Your task to perform on an android device: What's the weather today? Image 0: 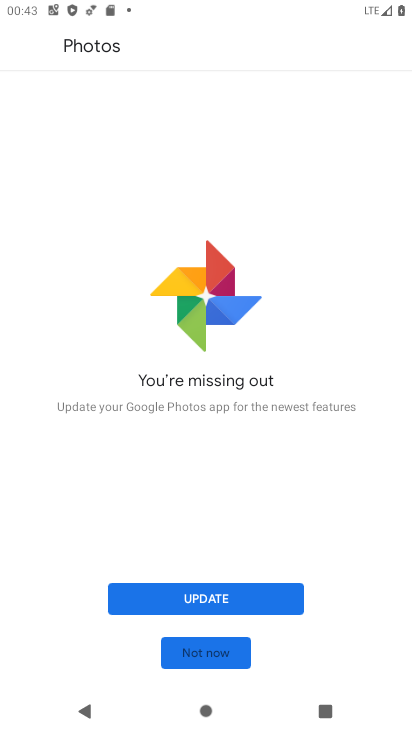
Step 0: press home button
Your task to perform on an android device: What's the weather today? Image 1: 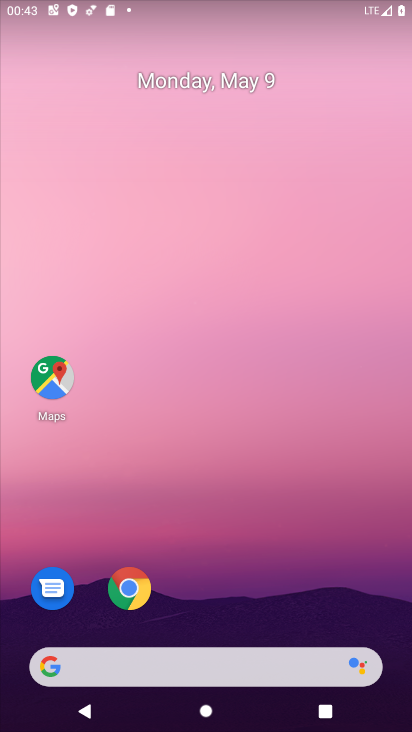
Step 1: click (140, 663)
Your task to perform on an android device: What's the weather today? Image 2: 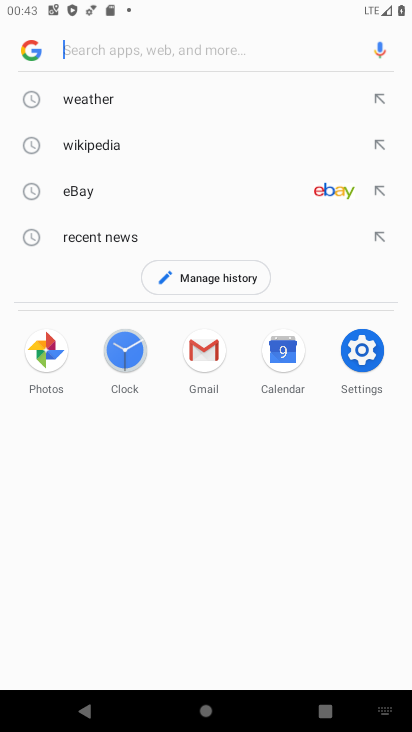
Step 2: click (99, 100)
Your task to perform on an android device: What's the weather today? Image 3: 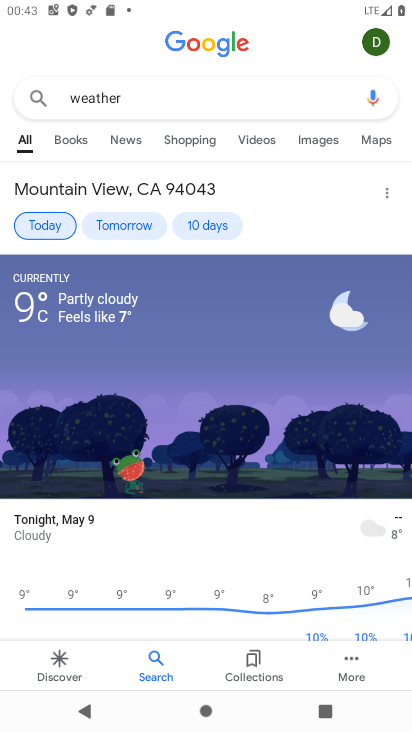
Step 3: task complete